Your task to perform on an android device: set an alarm Image 0: 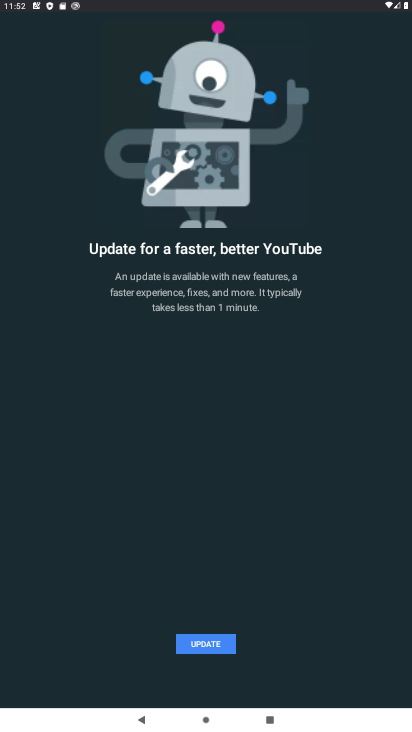
Step 0: press home button
Your task to perform on an android device: set an alarm Image 1: 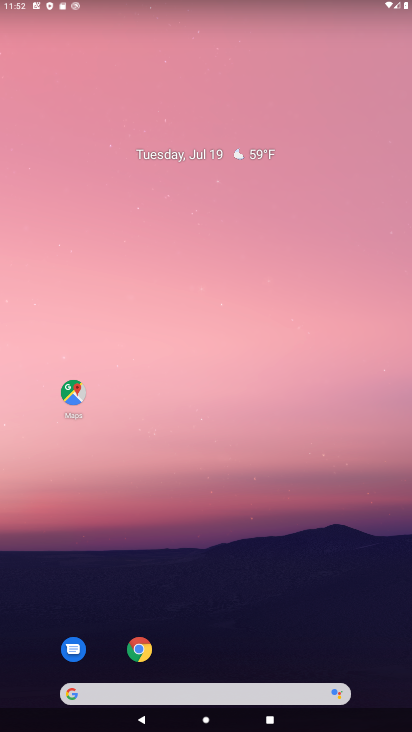
Step 1: drag from (234, 584) to (308, 184)
Your task to perform on an android device: set an alarm Image 2: 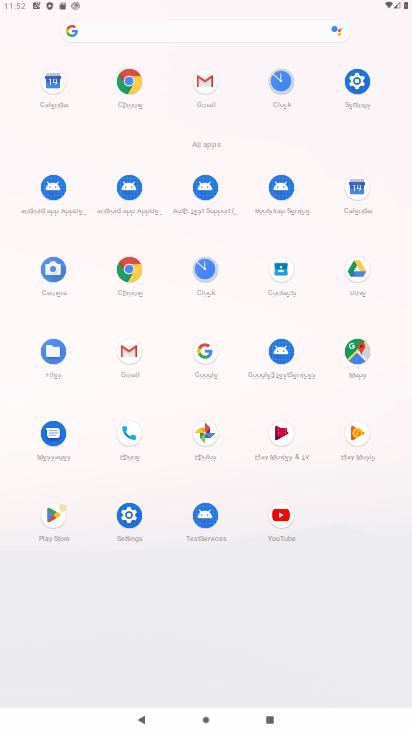
Step 2: click (210, 274)
Your task to perform on an android device: set an alarm Image 3: 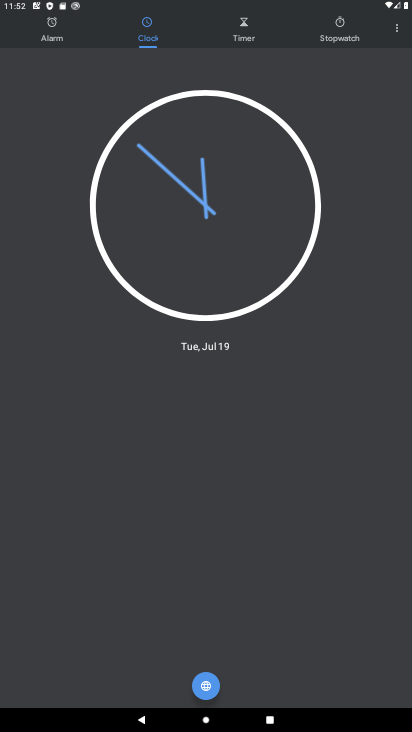
Step 3: click (55, 24)
Your task to perform on an android device: set an alarm Image 4: 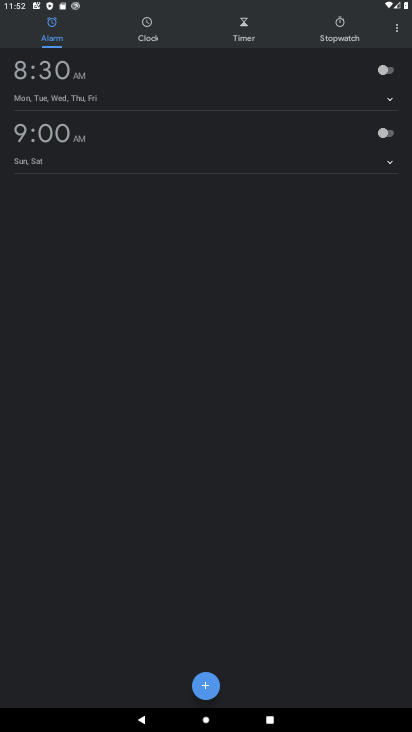
Step 4: click (381, 69)
Your task to perform on an android device: set an alarm Image 5: 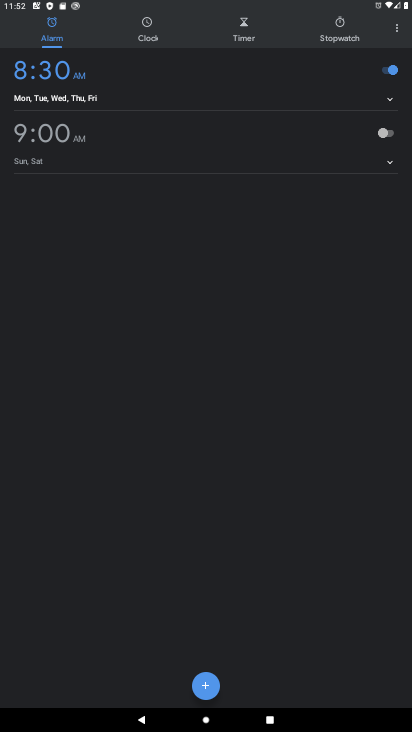
Step 5: task complete